Your task to perform on an android device: toggle pop-ups in chrome Image 0: 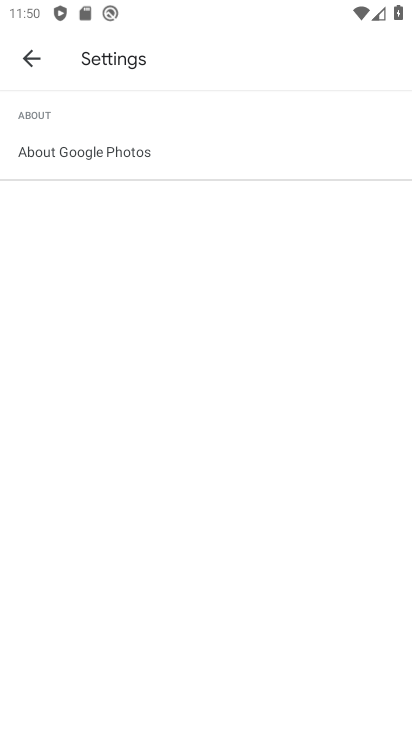
Step 0: press home button
Your task to perform on an android device: toggle pop-ups in chrome Image 1: 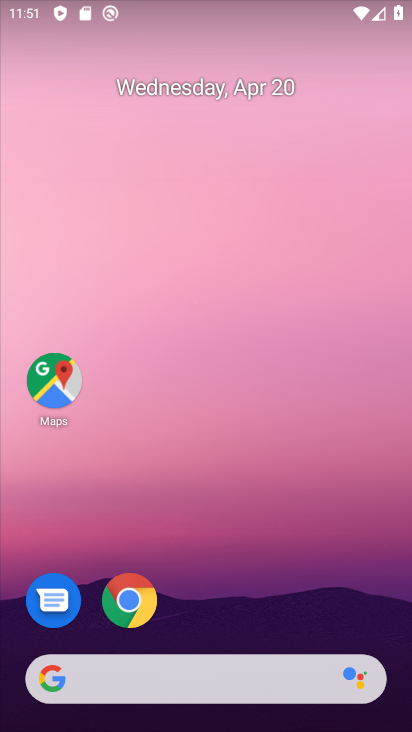
Step 1: click (135, 591)
Your task to perform on an android device: toggle pop-ups in chrome Image 2: 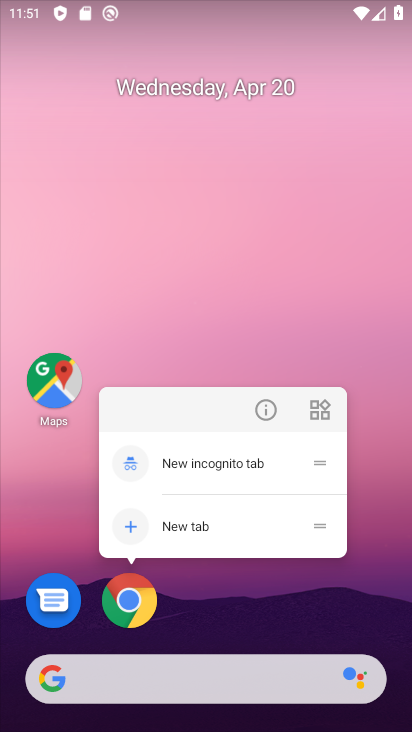
Step 2: click (135, 591)
Your task to perform on an android device: toggle pop-ups in chrome Image 3: 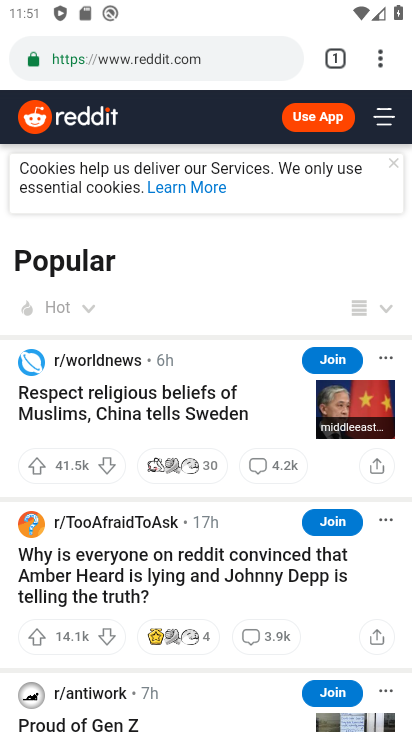
Step 3: click (381, 56)
Your task to perform on an android device: toggle pop-ups in chrome Image 4: 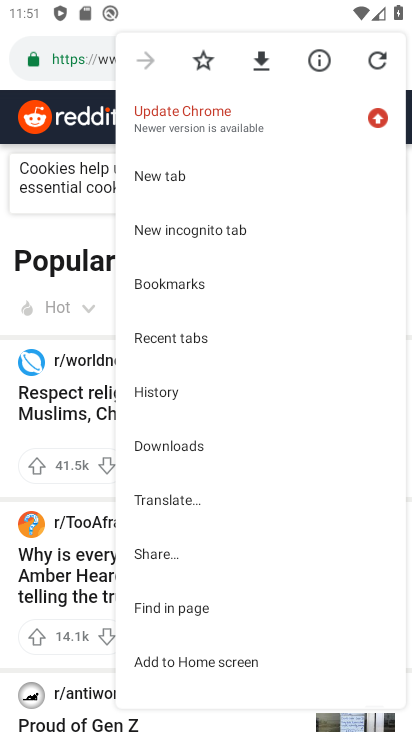
Step 4: click (381, 56)
Your task to perform on an android device: toggle pop-ups in chrome Image 5: 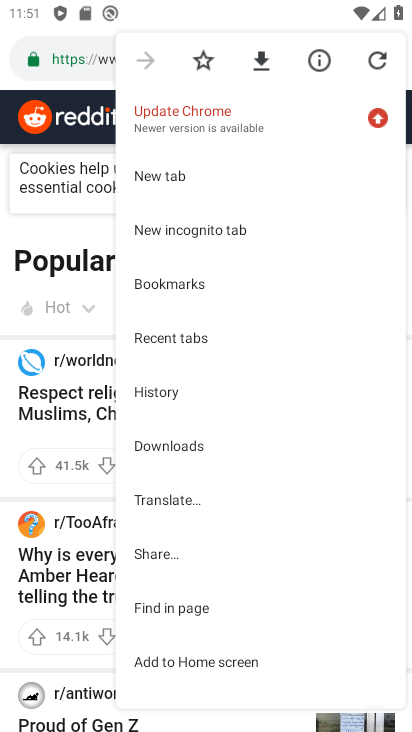
Step 5: drag from (268, 572) to (257, 313)
Your task to perform on an android device: toggle pop-ups in chrome Image 6: 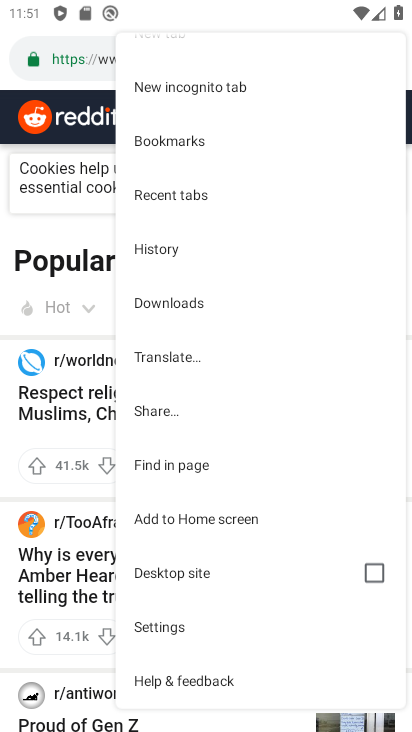
Step 6: click (208, 627)
Your task to perform on an android device: toggle pop-ups in chrome Image 7: 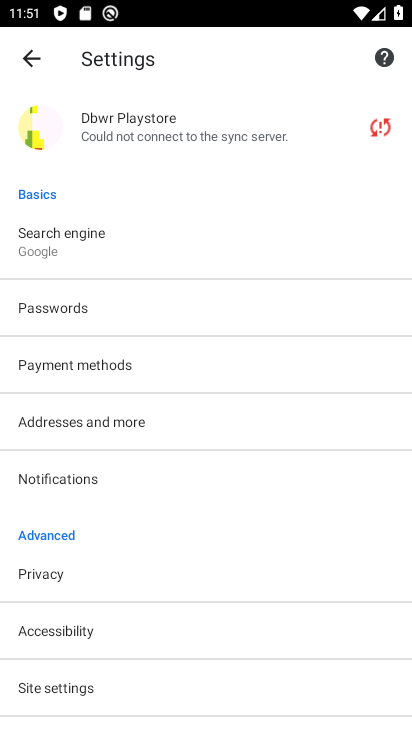
Step 7: click (175, 678)
Your task to perform on an android device: toggle pop-ups in chrome Image 8: 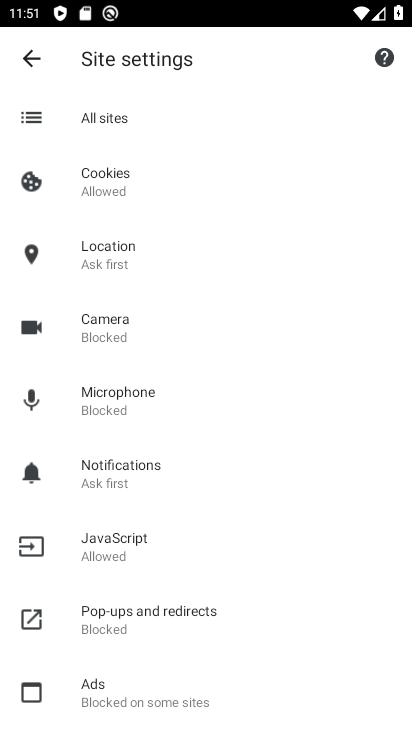
Step 8: click (182, 615)
Your task to perform on an android device: toggle pop-ups in chrome Image 9: 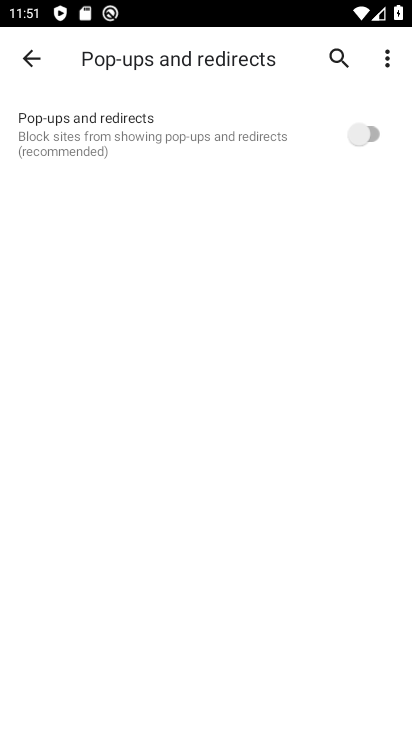
Step 9: click (367, 126)
Your task to perform on an android device: toggle pop-ups in chrome Image 10: 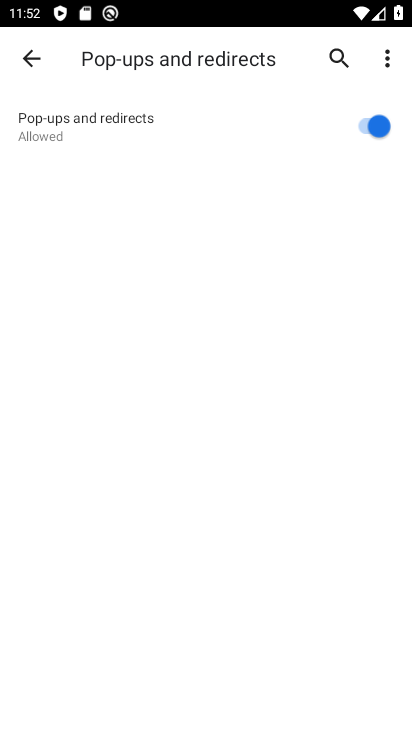
Step 10: task complete